Your task to perform on an android device: manage bookmarks in the chrome app Image 0: 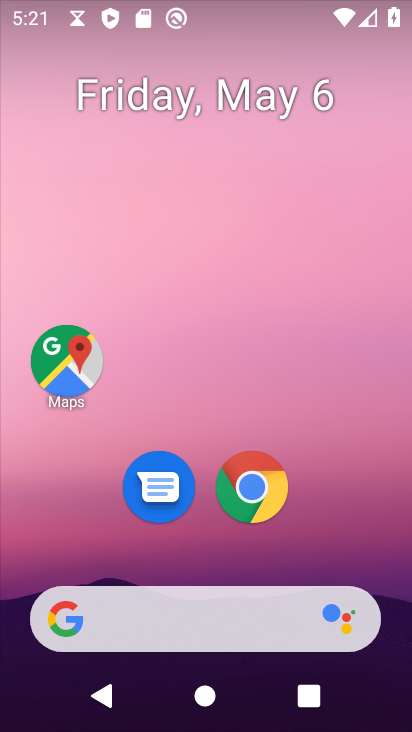
Step 0: click (254, 484)
Your task to perform on an android device: manage bookmarks in the chrome app Image 1: 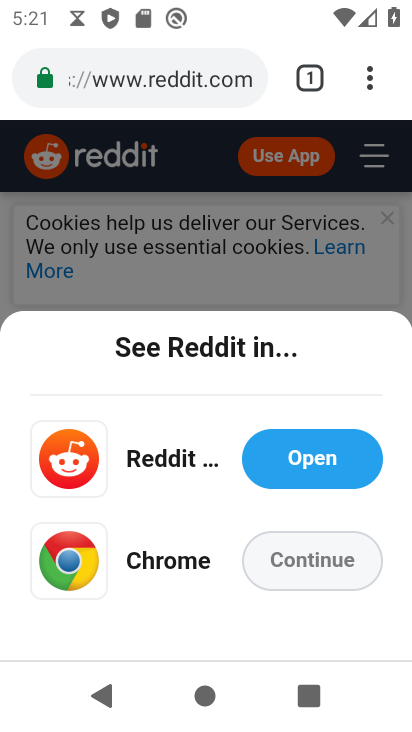
Step 1: click (372, 79)
Your task to perform on an android device: manage bookmarks in the chrome app Image 2: 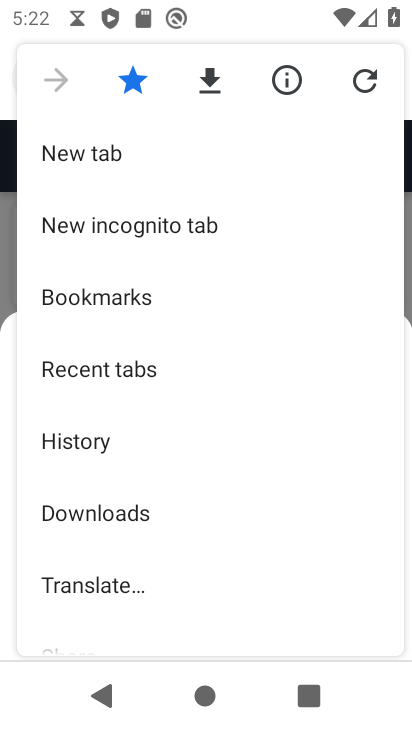
Step 2: click (139, 299)
Your task to perform on an android device: manage bookmarks in the chrome app Image 3: 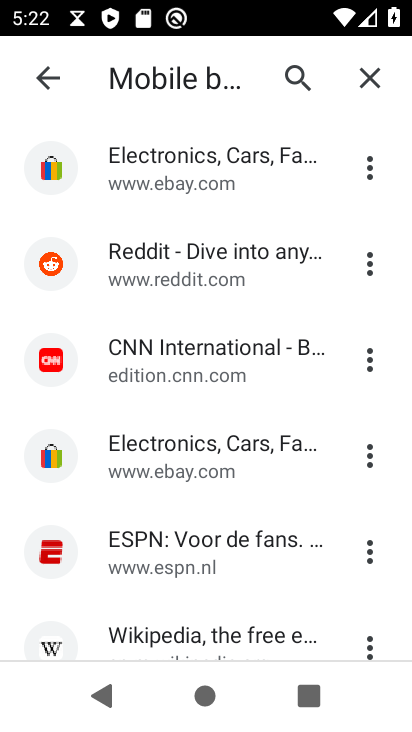
Step 3: click (370, 168)
Your task to perform on an android device: manage bookmarks in the chrome app Image 4: 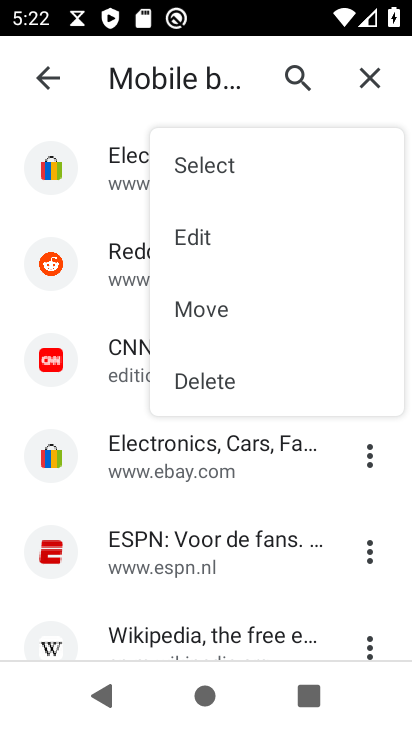
Step 4: click (186, 241)
Your task to perform on an android device: manage bookmarks in the chrome app Image 5: 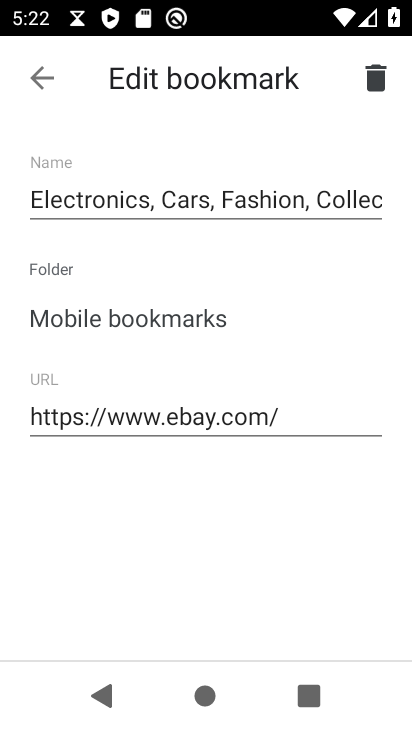
Step 5: click (212, 205)
Your task to perform on an android device: manage bookmarks in the chrome app Image 6: 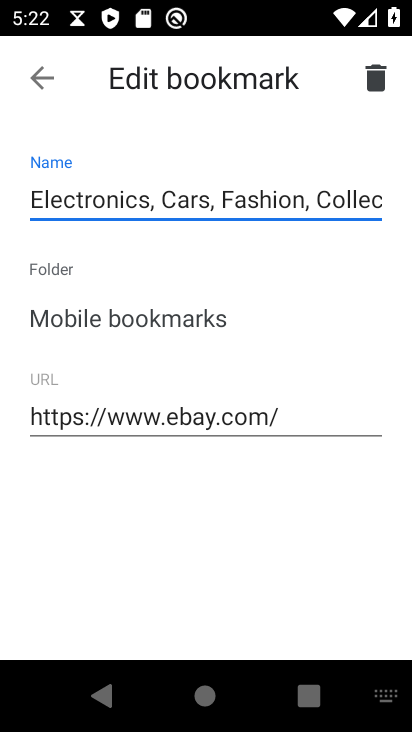
Step 6: click (212, 208)
Your task to perform on an android device: manage bookmarks in the chrome app Image 7: 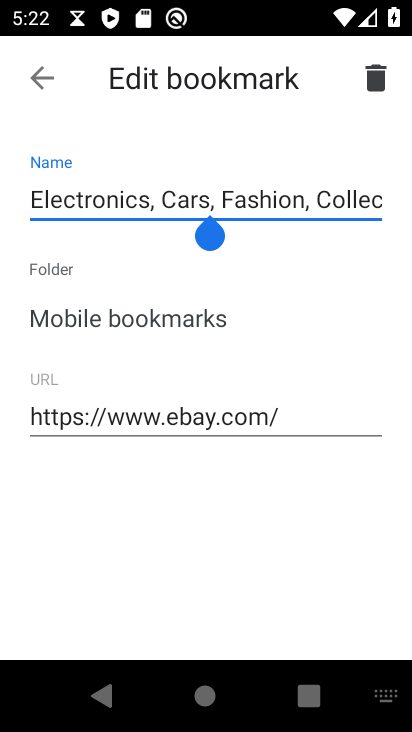
Step 7: click (212, 208)
Your task to perform on an android device: manage bookmarks in the chrome app Image 8: 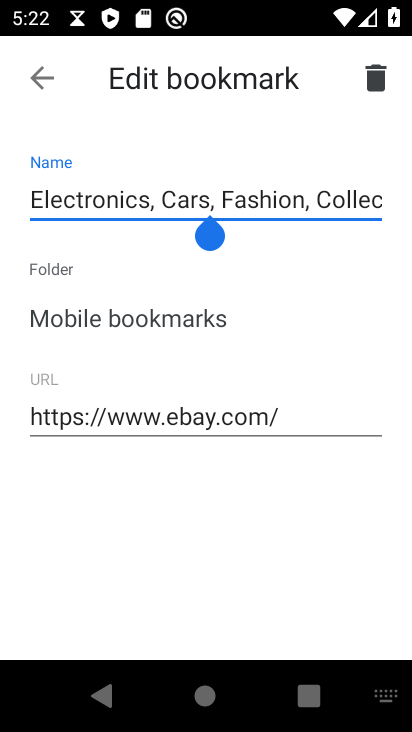
Step 8: click (204, 318)
Your task to perform on an android device: manage bookmarks in the chrome app Image 9: 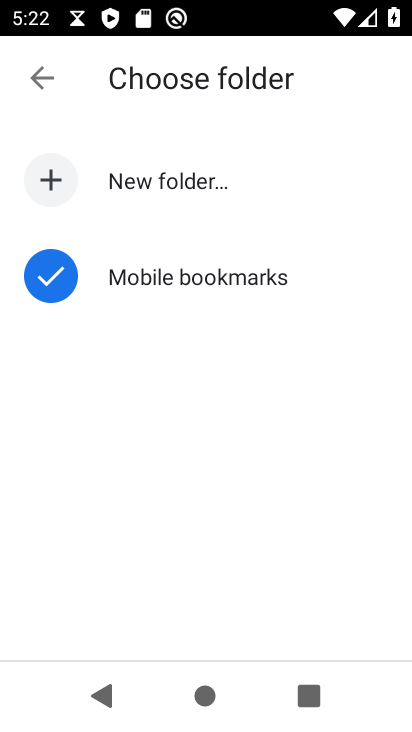
Step 9: press back button
Your task to perform on an android device: manage bookmarks in the chrome app Image 10: 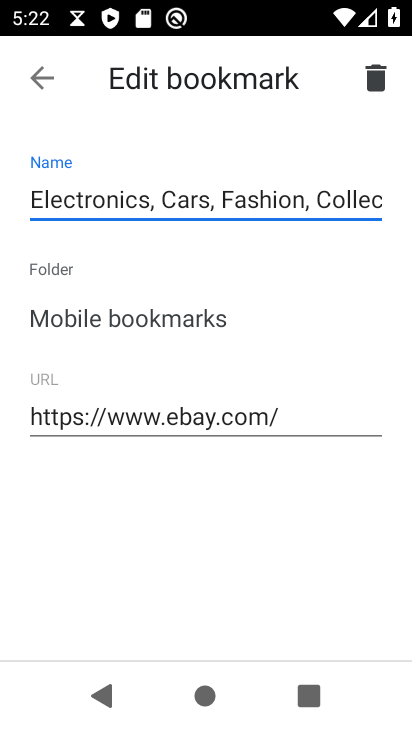
Step 10: click (370, 67)
Your task to perform on an android device: manage bookmarks in the chrome app Image 11: 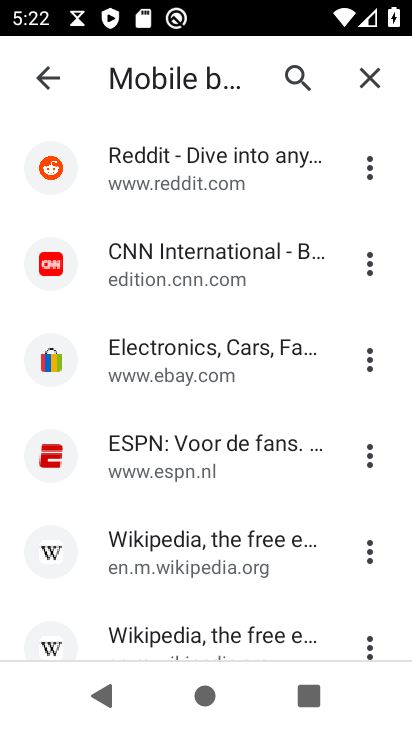
Step 11: task complete